Your task to perform on an android device: Open privacy settings Image 0: 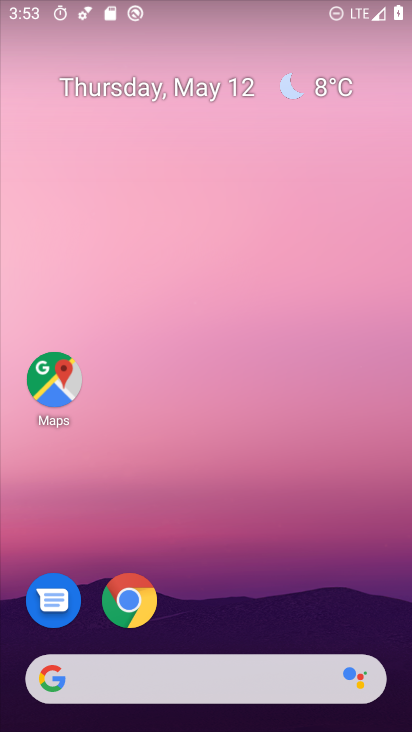
Step 0: drag from (204, 724) to (210, 256)
Your task to perform on an android device: Open privacy settings Image 1: 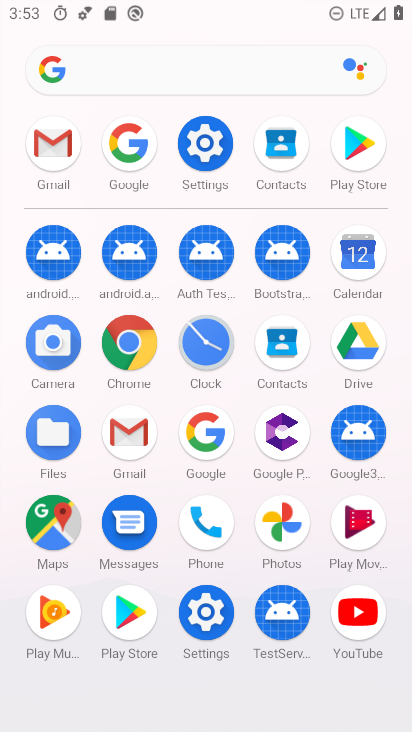
Step 1: click (205, 136)
Your task to perform on an android device: Open privacy settings Image 2: 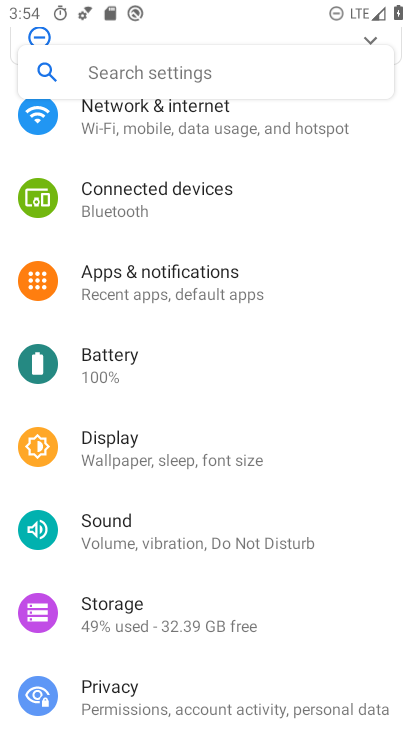
Step 2: click (109, 689)
Your task to perform on an android device: Open privacy settings Image 3: 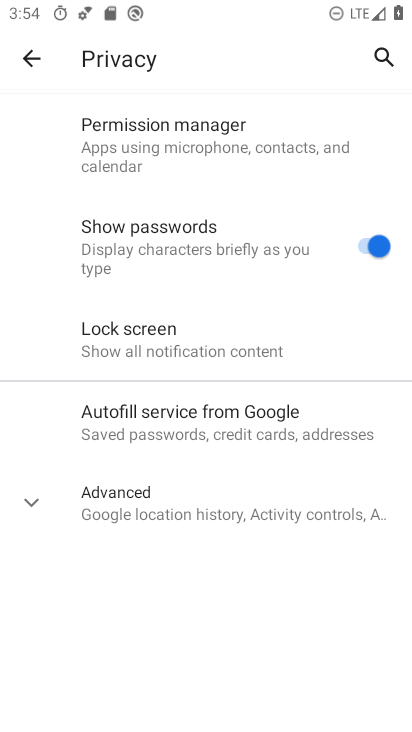
Step 3: task complete